Your task to perform on an android device: Search for seafood restaurants on Google Maps Image 0: 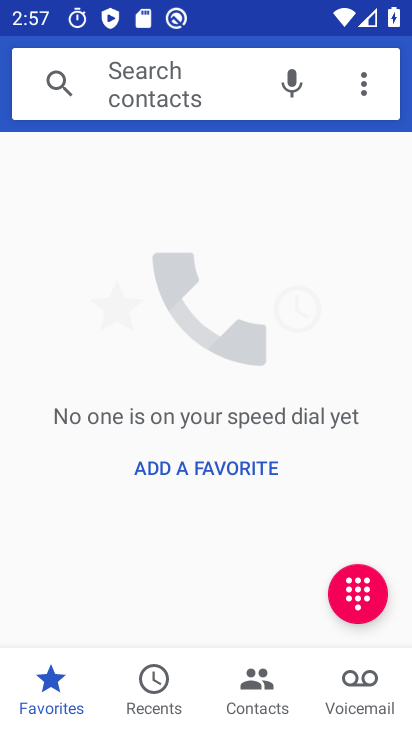
Step 0: press home button
Your task to perform on an android device: Search for seafood restaurants on Google Maps Image 1: 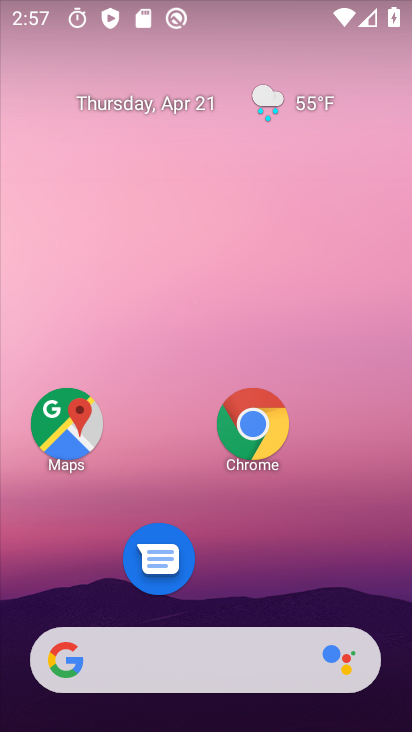
Step 1: click (75, 427)
Your task to perform on an android device: Search for seafood restaurants on Google Maps Image 2: 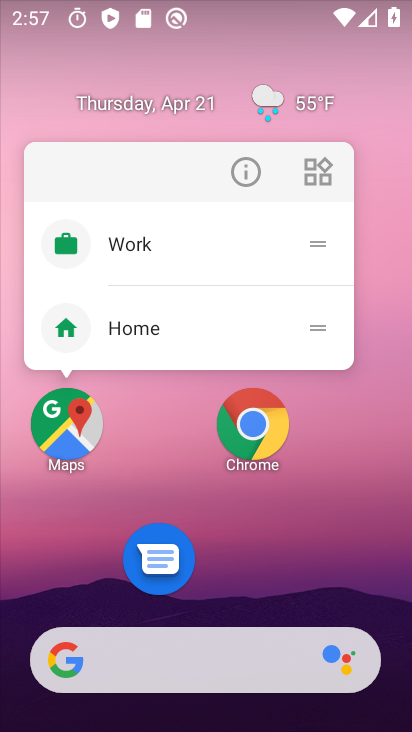
Step 2: click (142, 472)
Your task to perform on an android device: Search for seafood restaurants on Google Maps Image 3: 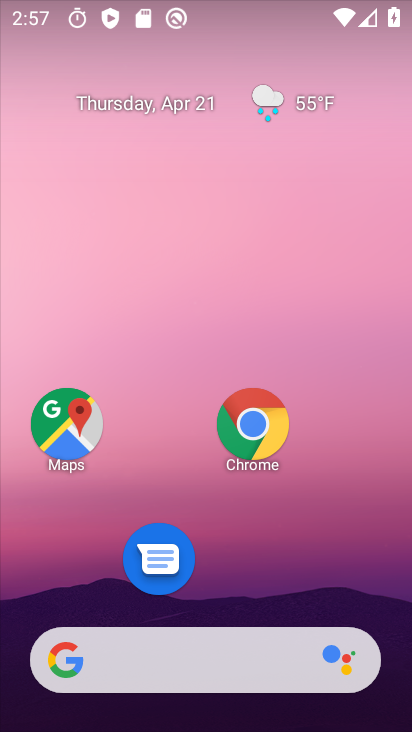
Step 3: click (66, 427)
Your task to perform on an android device: Search for seafood restaurants on Google Maps Image 4: 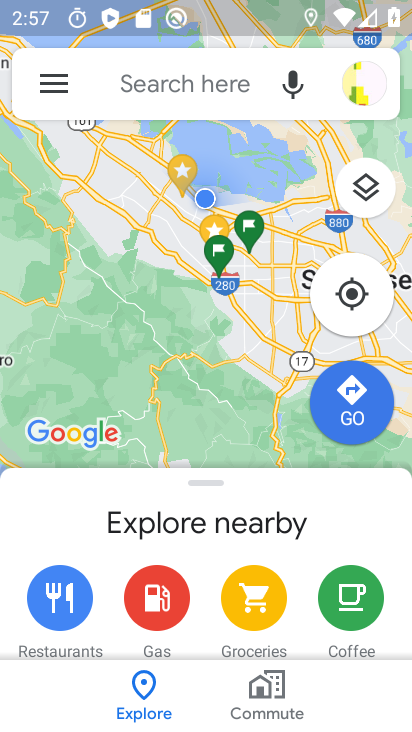
Step 4: click (159, 88)
Your task to perform on an android device: Search for seafood restaurants on Google Maps Image 5: 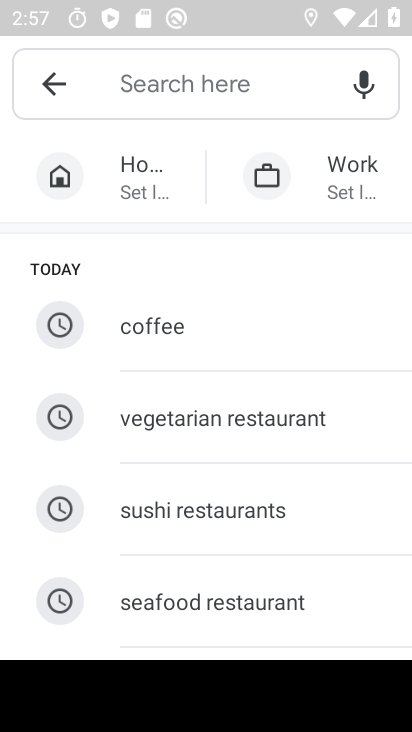
Step 5: click (215, 604)
Your task to perform on an android device: Search for seafood restaurants on Google Maps Image 6: 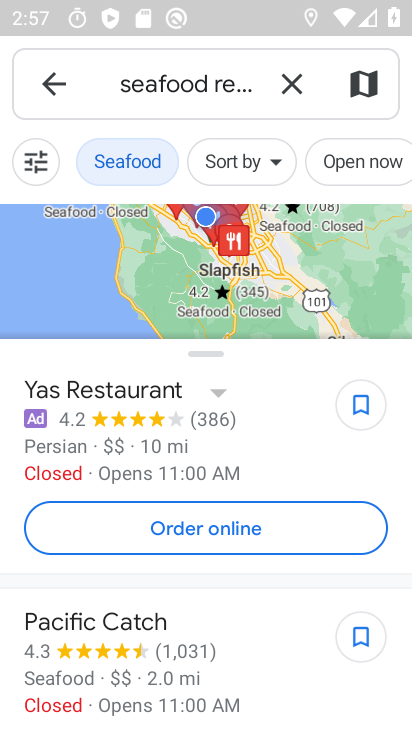
Step 6: task complete